Your task to perform on an android device: toggle notification dots Image 0: 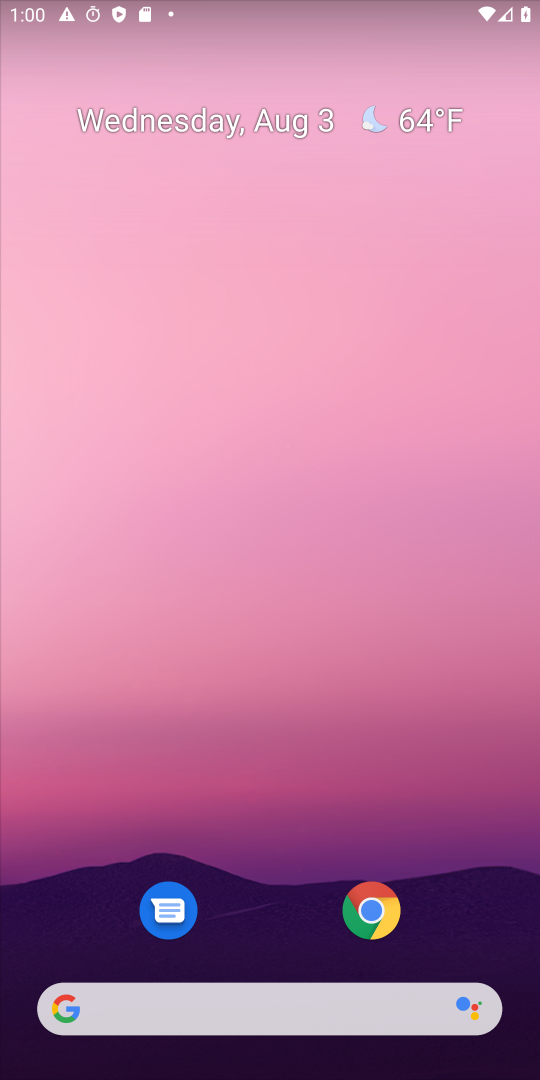
Step 0: drag from (380, 666) to (435, 82)
Your task to perform on an android device: toggle notification dots Image 1: 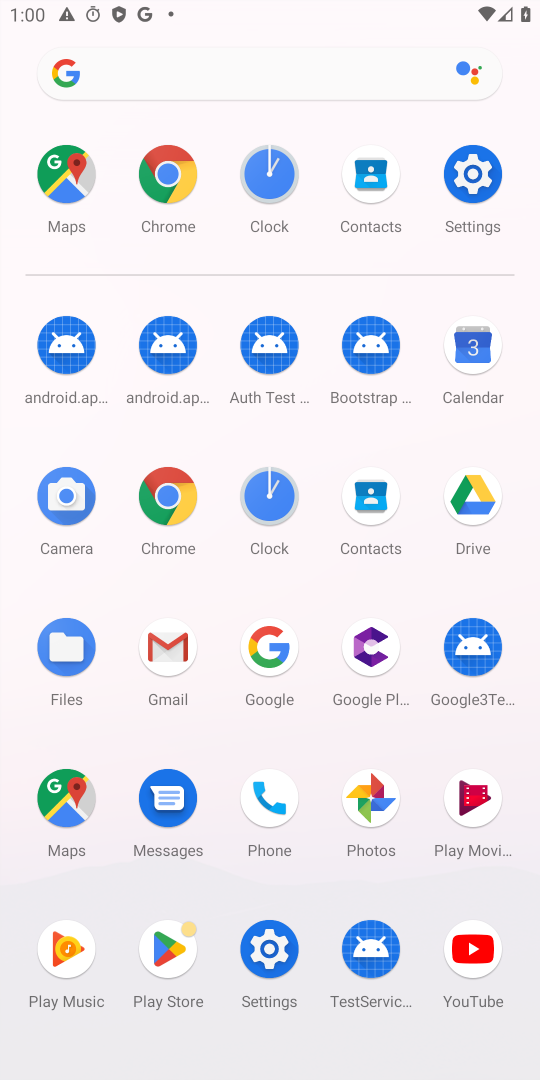
Step 1: click (475, 179)
Your task to perform on an android device: toggle notification dots Image 2: 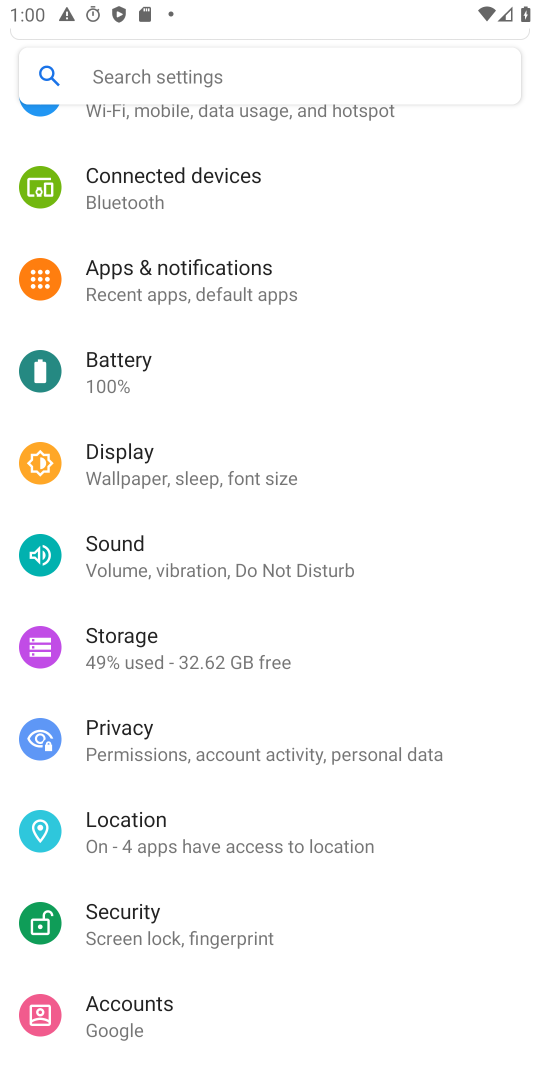
Step 2: click (329, 287)
Your task to perform on an android device: toggle notification dots Image 3: 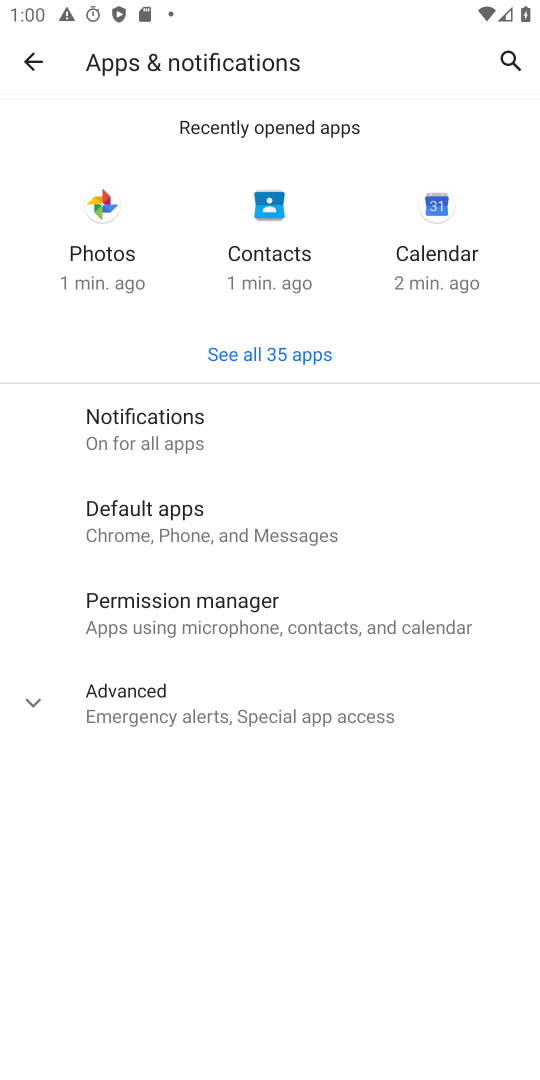
Step 3: click (235, 702)
Your task to perform on an android device: toggle notification dots Image 4: 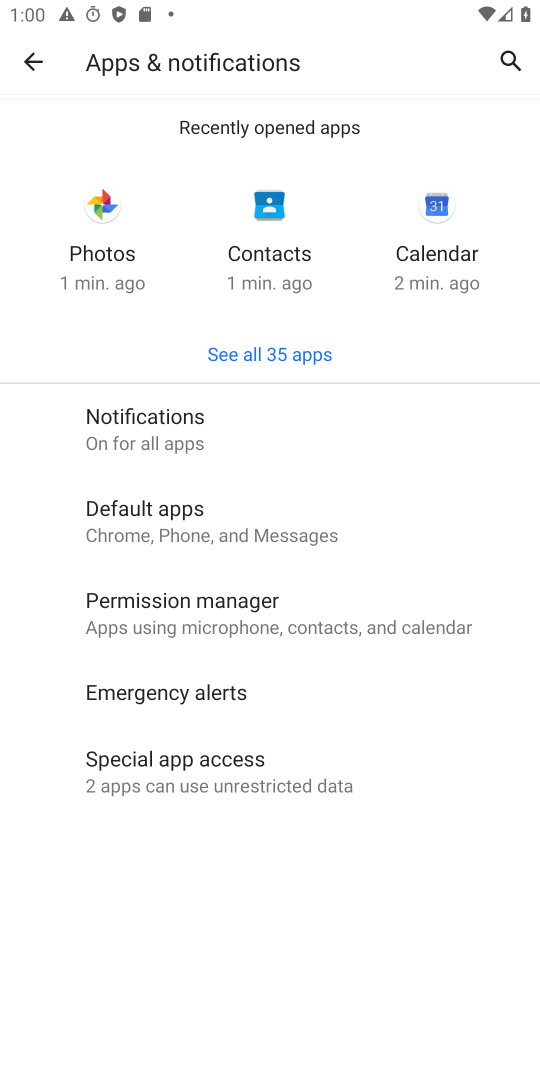
Step 4: click (175, 433)
Your task to perform on an android device: toggle notification dots Image 5: 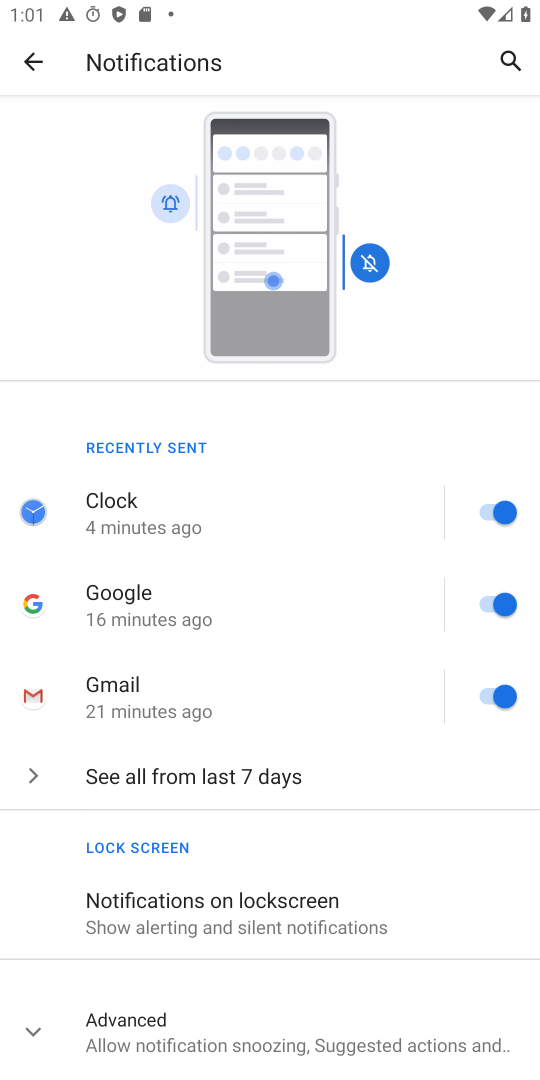
Step 5: drag from (285, 776) to (361, 261)
Your task to perform on an android device: toggle notification dots Image 6: 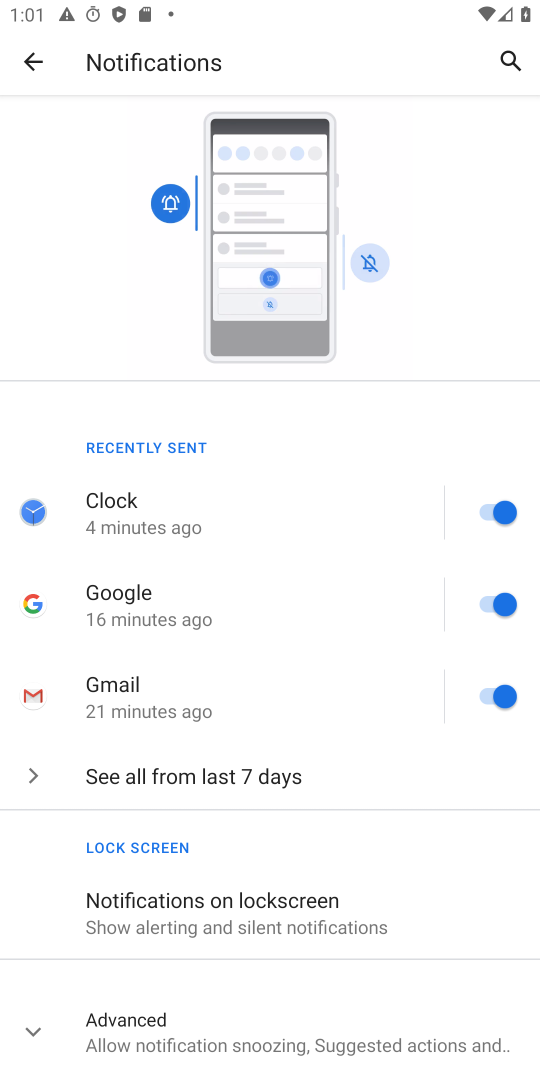
Step 6: click (363, 1030)
Your task to perform on an android device: toggle notification dots Image 7: 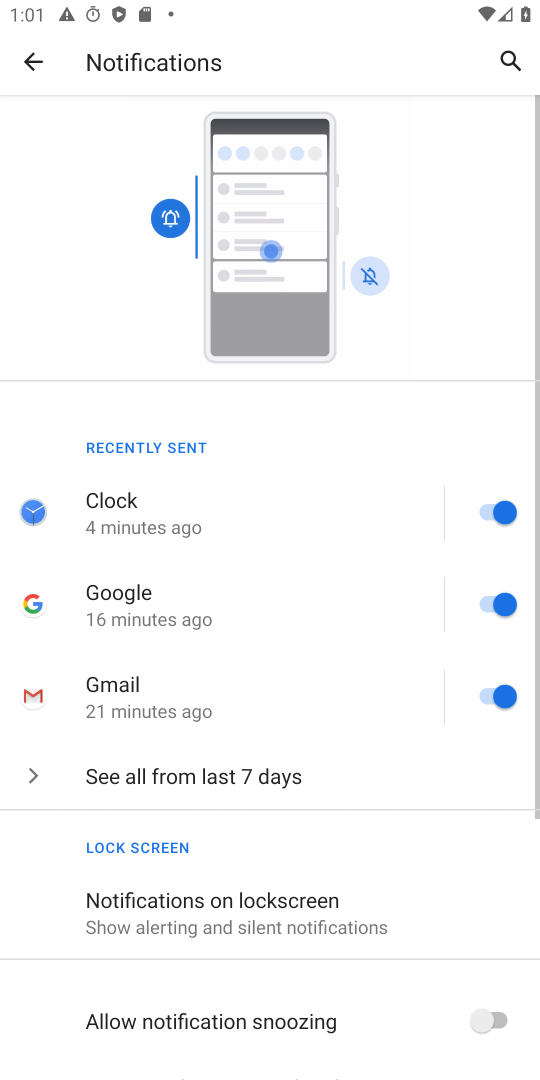
Step 7: drag from (353, 1024) to (457, 285)
Your task to perform on an android device: toggle notification dots Image 8: 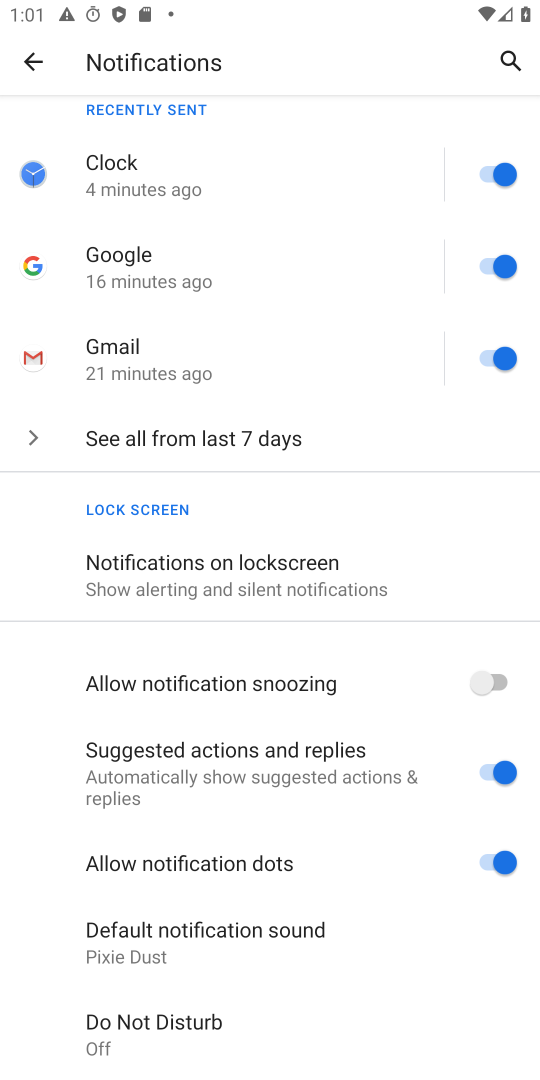
Step 8: click (488, 858)
Your task to perform on an android device: toggle notification dots Image 9: 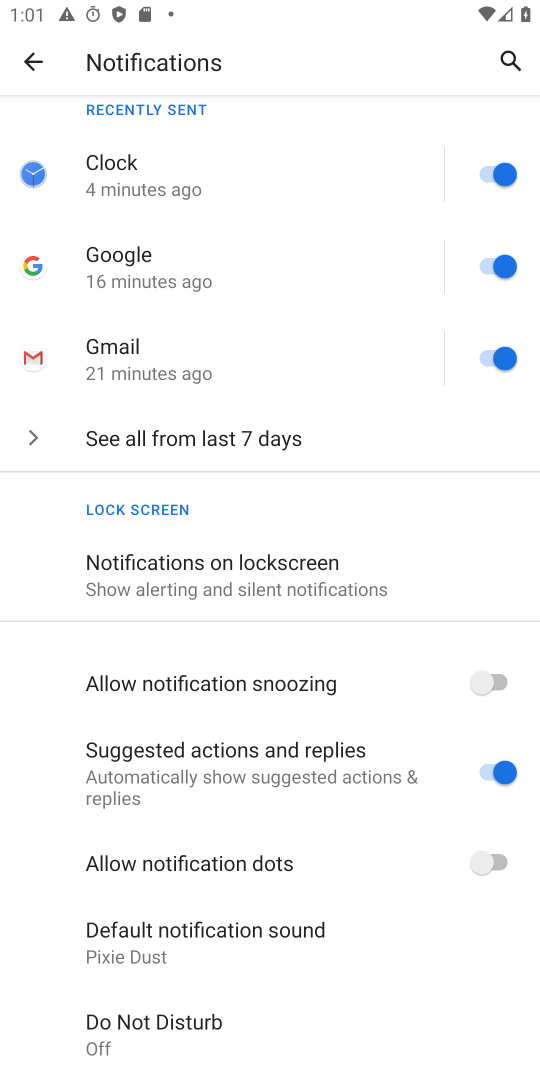
Step 9: task complete